Your task to perform on an android device: Show me the alarms in the clock app Image 0: 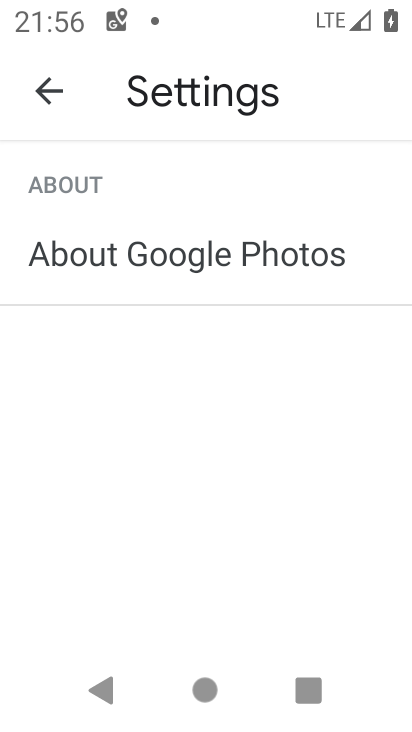
Step 0: press home button
Your task to perform on an android device: Show me the alarms in the clock app Image 1: 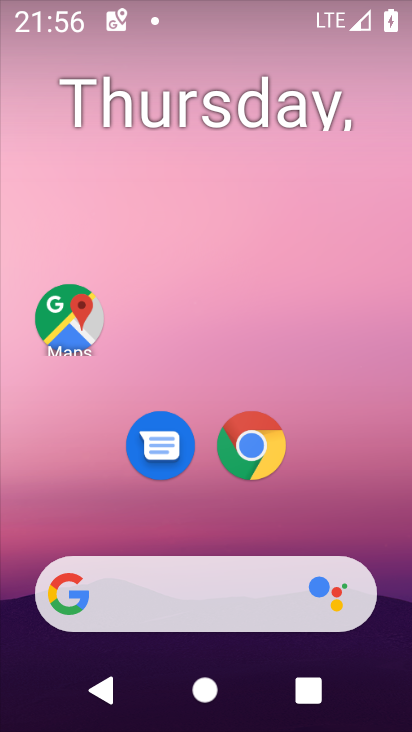
Step 1: drag from (227, 519) to (221, 191)
Your task to perform on an android device: Show me the alarms in the clock app Image 2: 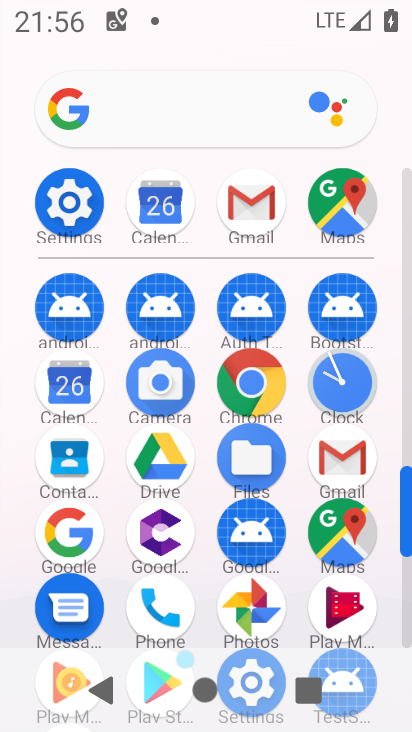
Step 2: click (332, 394)
Your task to perform on an android device: Show me the alarms in the clock app Image 3: 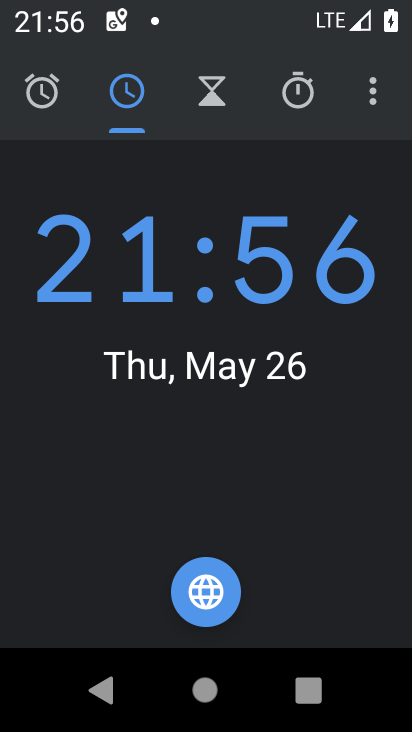
Step 3: click (39, 94)
Your task to perform on an android device: Show me the alarms in the clock app Image 4: 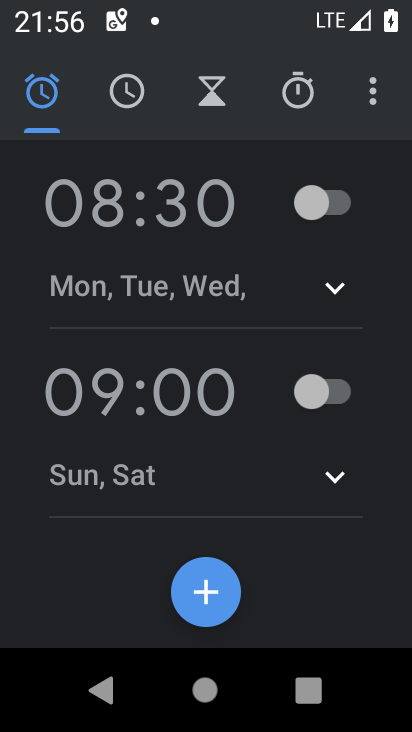
Step 4: task complete